Your task to perform on an android device: Open Yahoo.com Image 0: 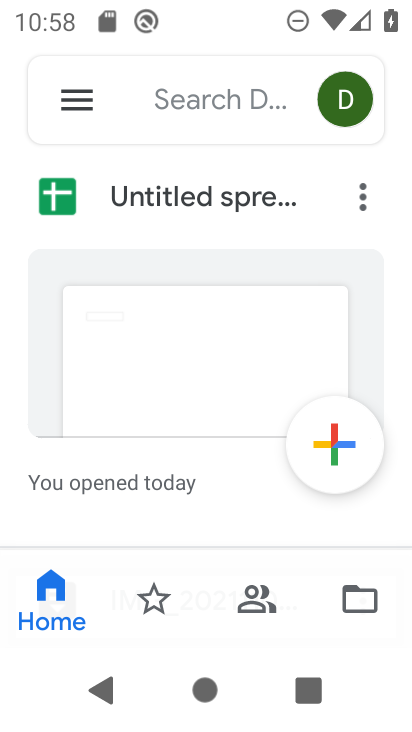
Step 0: press home button
Your task to perform on an android device: Open Yahoo.com Image 1: 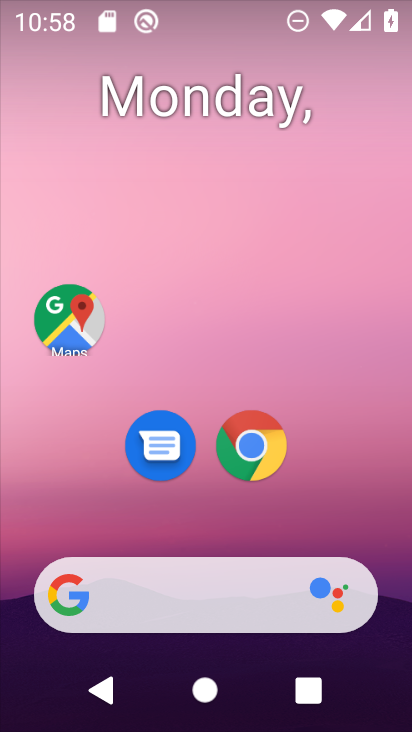
Step 1: click (259, 436)
Your task to perform on an android device: Open Yahoo.com Image 2: 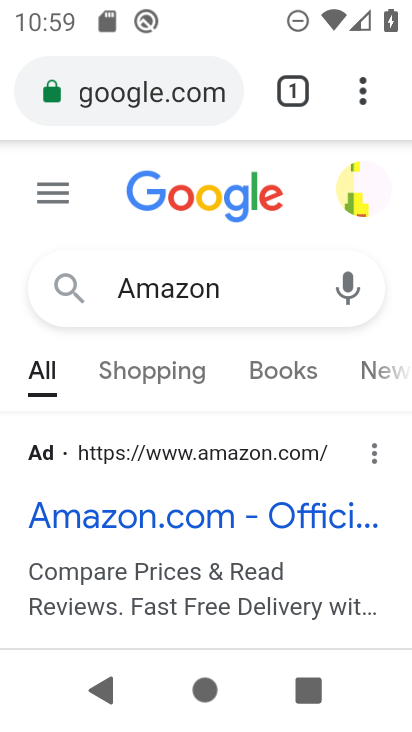
Step 2: click (195, 87)
Your task to perform on an android device: Open Yahoo.com Image 3: 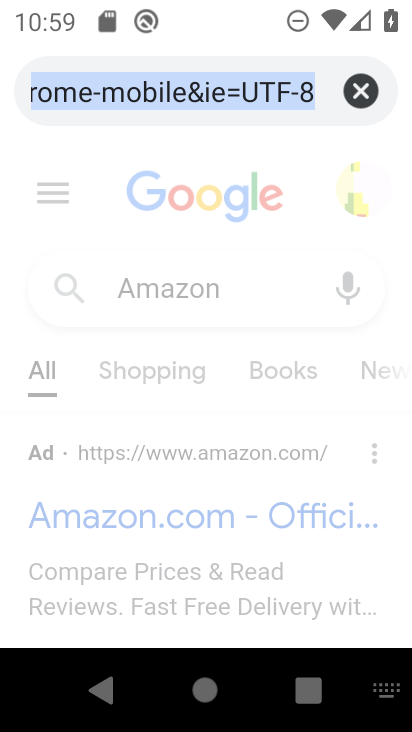
Step 3: type "yahoo.com"
Your task to perform on an android device: Open Yahoo.com Image 4: 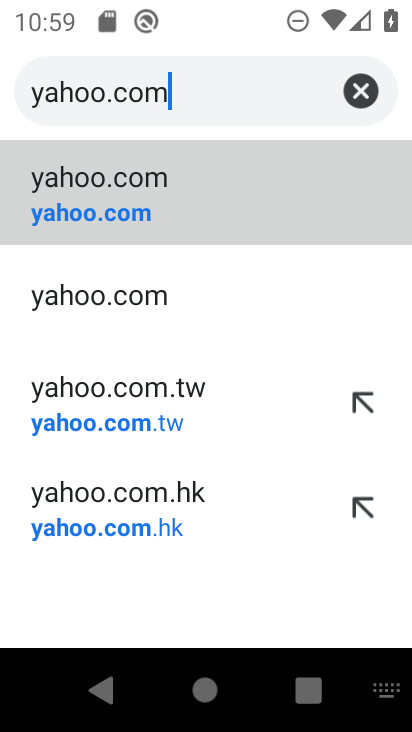
Step 4: click (162, 191)
Your task to perform on an android device: Open Yahoo.com Image 5: 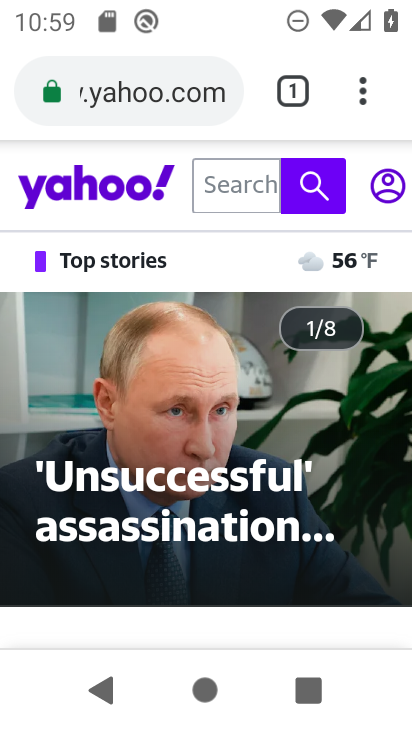
Step 5: task complete